Your task to perform on an android device: When is my next meeting? Image 0: 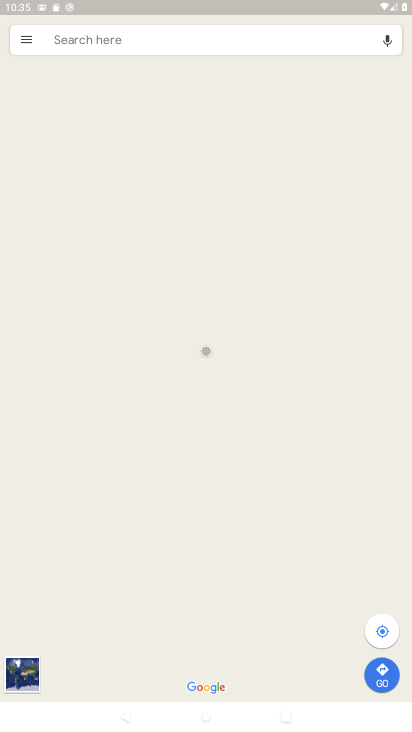
Step 0: press home button
Your task to perform on an android device: When is my next meeting? Image 1: 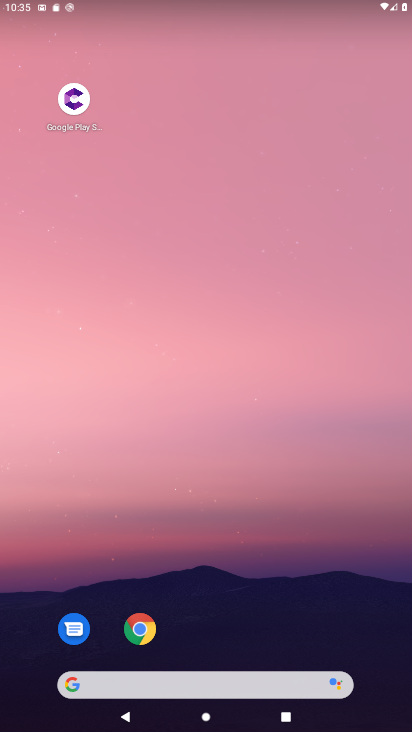
Step 1: drag from (279, 575) to (50, 16)
Your task to perform on an android device: When is my next meeting? Image 2: 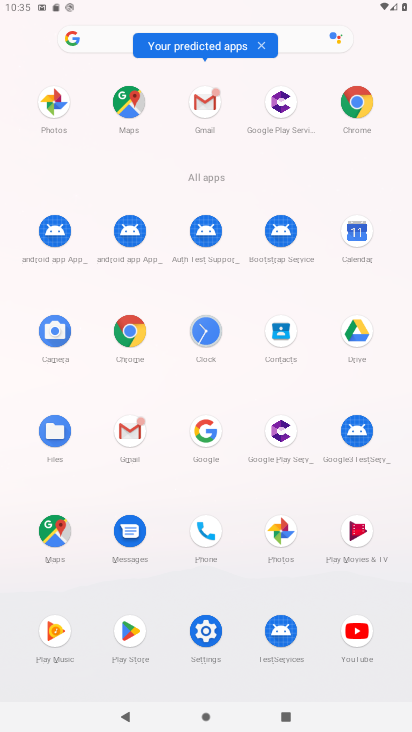
Step 2: click (365, 235)
Your task to perform on an android device: When is my next meeting? Image 3: 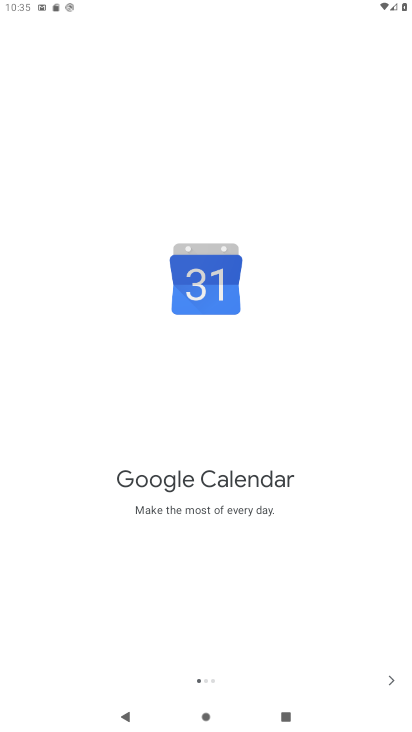
Step 3: click (395, 676)
Your task to perform on an android device: When is my next meeting? Image 4: 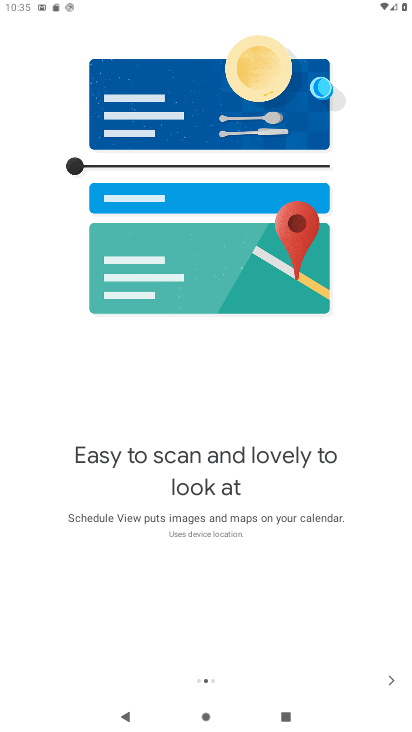
Step 4: click (395, 676)
Your task to perform on an android device: When is my next meeting? Image 5: 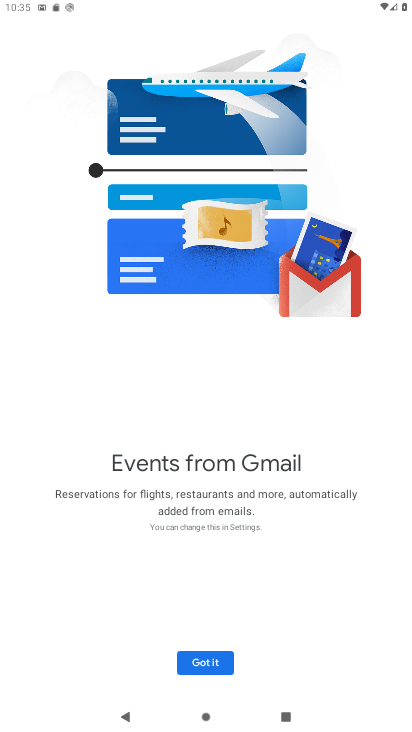
Step 5: click (223, 663)
Your task to perform on an android device: When is my next meeting? Image 6: 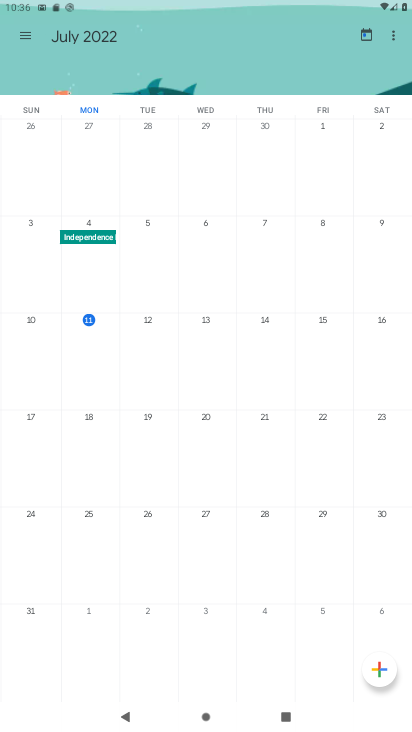
Step 6: click (27, 36)
Your task to perform on an android device: When is my next meeting? Image 7: 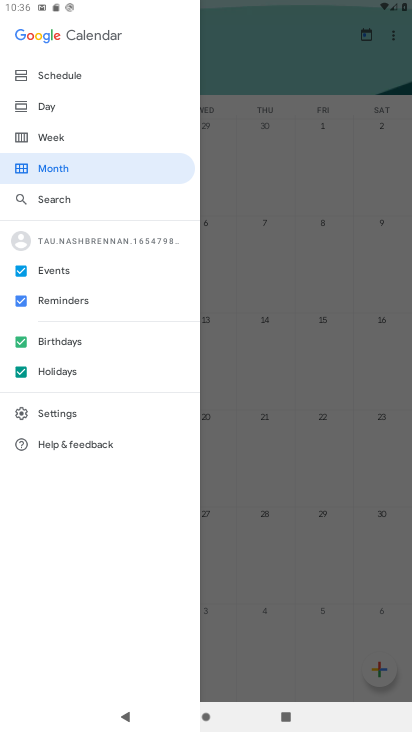
Step 7: click (84, 80)
Your task to perform on an android device: When is my next meeting? Image 8: 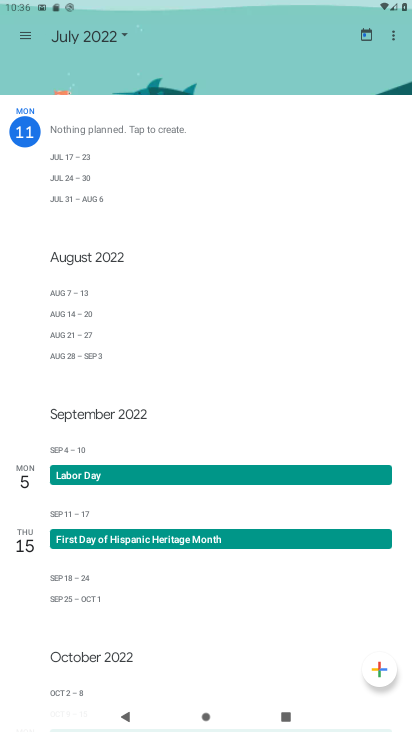
Step 8: task complete